Your task to perform on an android device: open device folders in google photos Image 0: 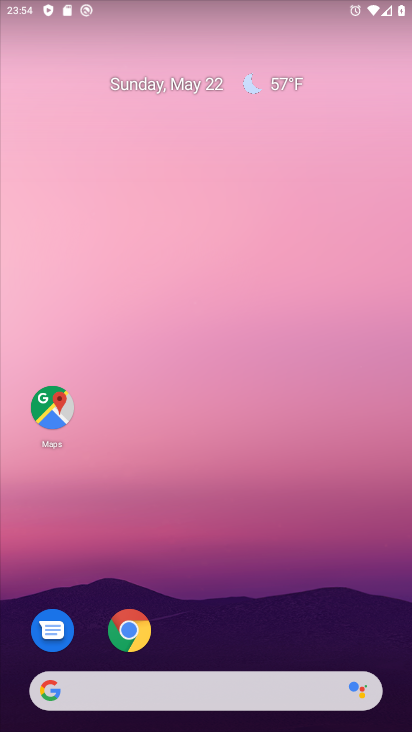
Step 0: drag from (254, 424) to (201, 187)
Your task to perform on an android device: open device folders in google photos Image 1: 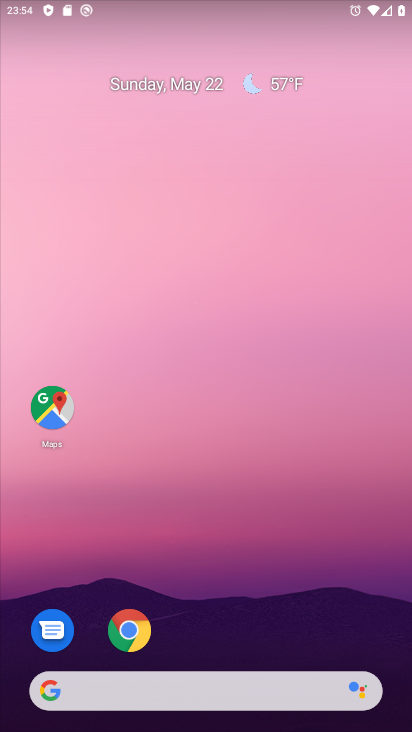
Step 1: drag from (263, 616) to (195, 37)
Your task to perform on an android device: open device folders in google photos Image 2: 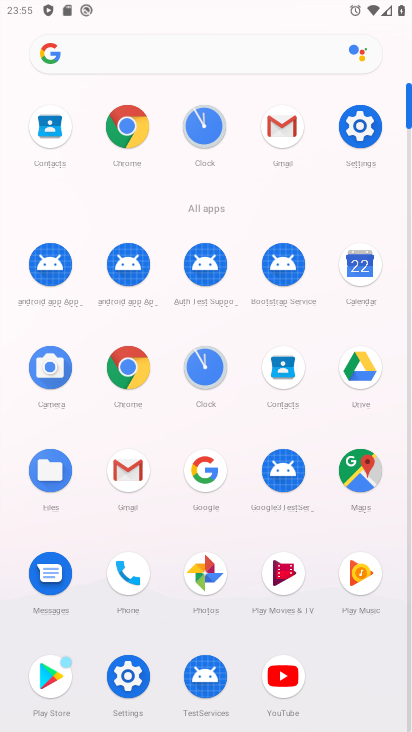
Step 2: click (199, 577)
Your task to perform on an android device: open device folders in google photos Image 3: 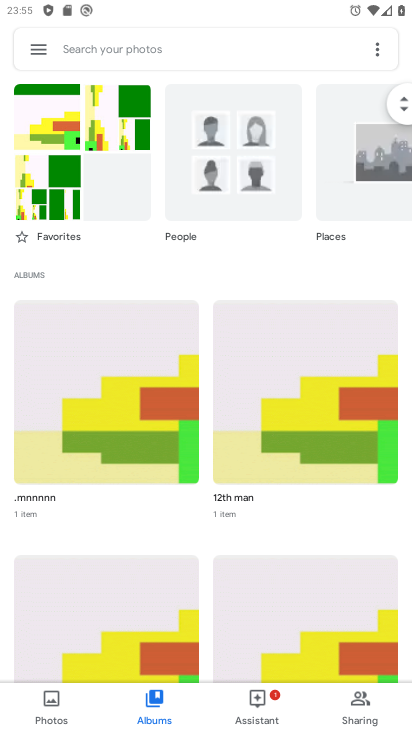
Step 3: click (39, 49)
Your task to perform on an android device: open device folders in google photos Image 4: 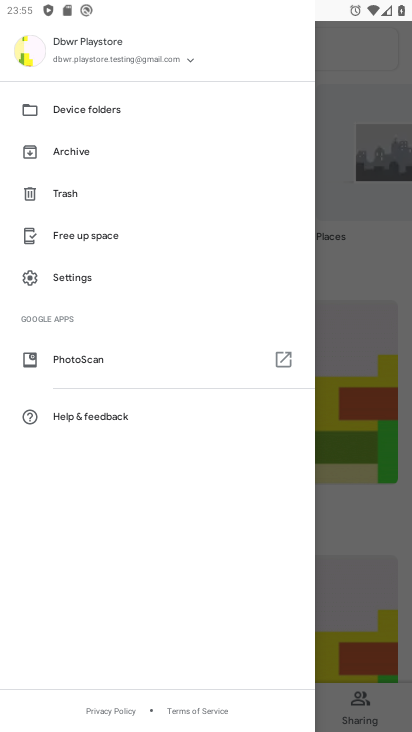
Step 4: click (101, 113)
Your task to perform on an android device: open device folders in google photos Image 5: 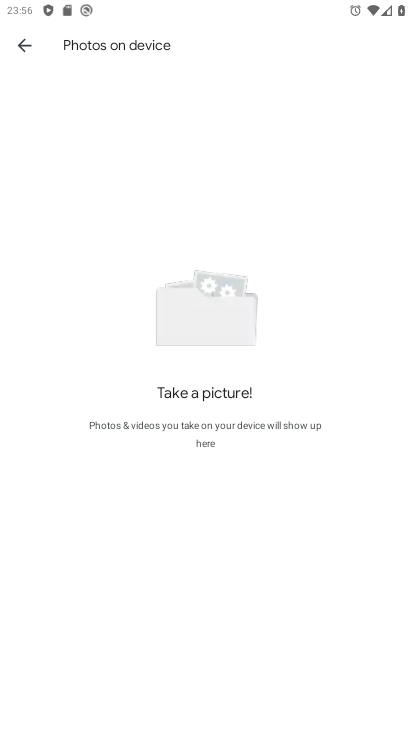
Step 5: task complete